Your task to perform on an android device: turn on wifi Image 0: 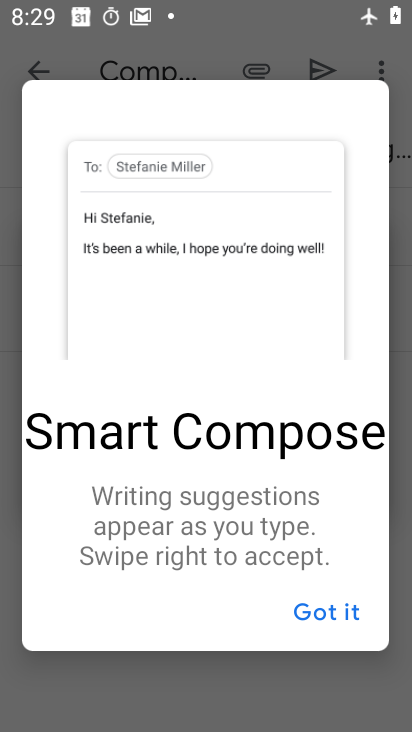
Step 0: press home button
Your task to perform on an android device: turn on wifi Image 1: 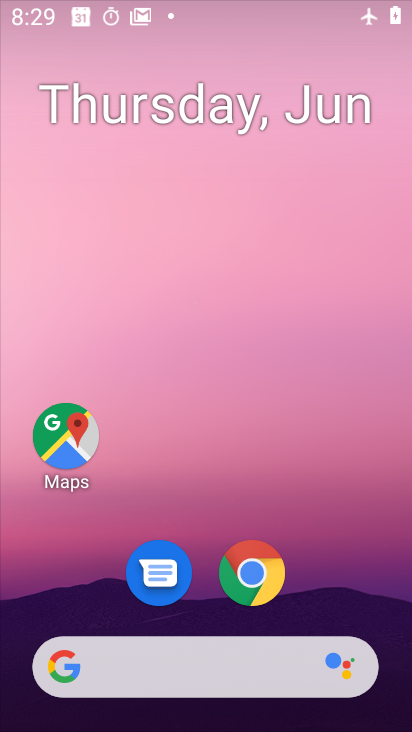
Step 1: drag from (255, 533) to (259, 230)
Your task to perform on an android device: turn on wifi Image 2: 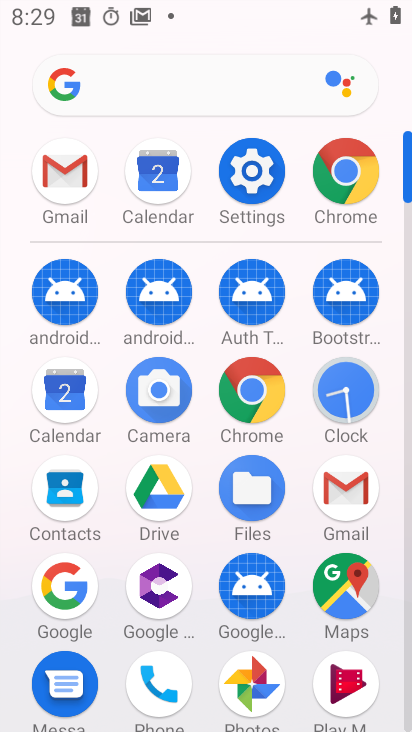
Step 2: click (250, 152)
Your task to perform on an android device: turn on wifi Image 3: 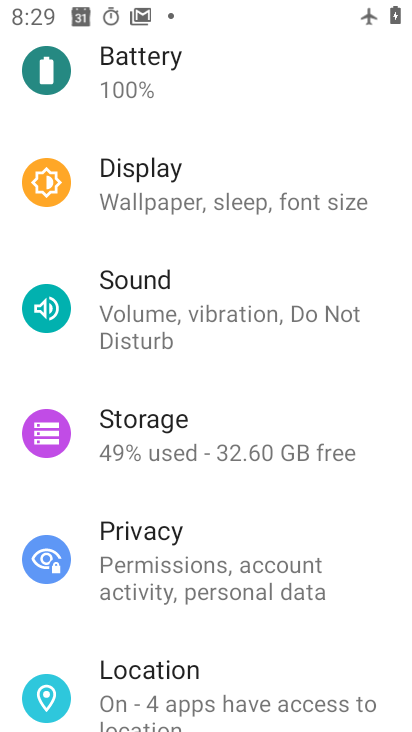
Step 3: drag from (214, 208) to (261, 661)
Your task to perform on an android device: turn on wifi Image 4: 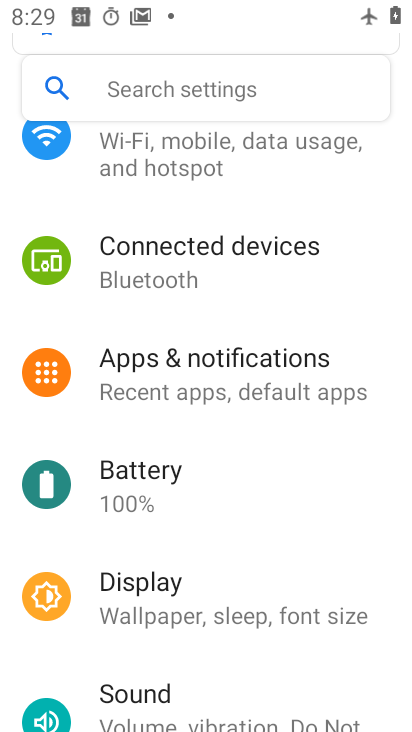
Step 4: click (245, 150)
Your task to perform on an android device: turn on wifi Image 5: 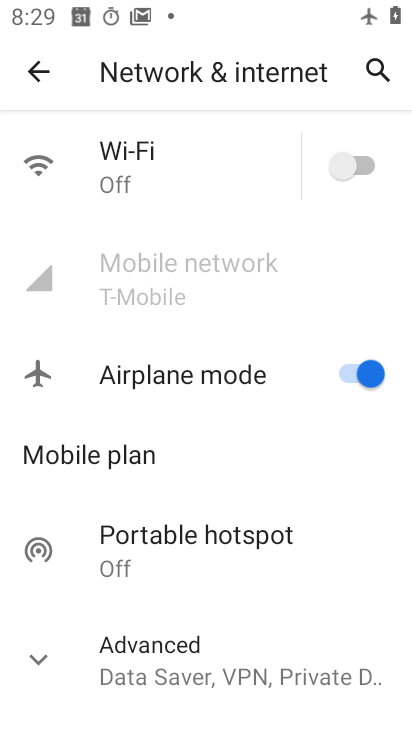
Step 5: click (355, 159)
Your task to perform on an android device: turn on wifi Image 6: 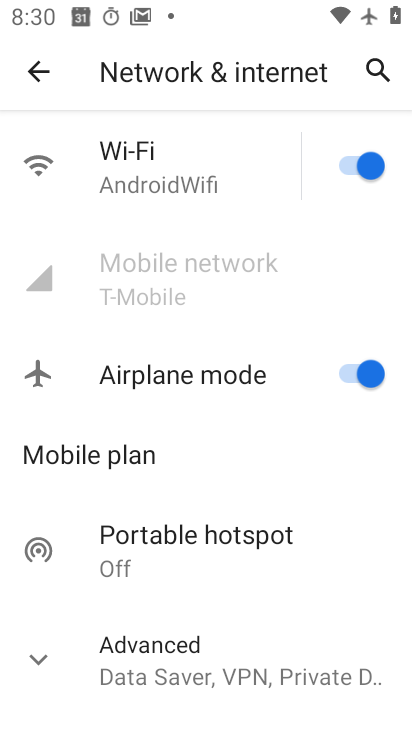
Step 6: task complete